Your task to perform on an android device: Go to calendar. Show me events next week Image 0: 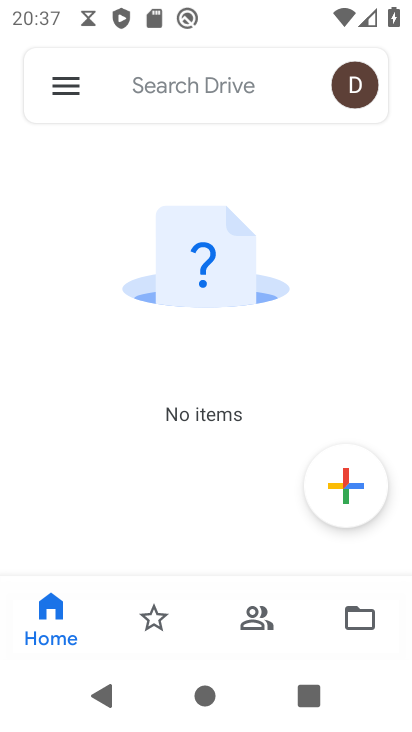
Step 0: press home button
Your task to perform on an android device: Go to calendar. Show me events next week Image 1: 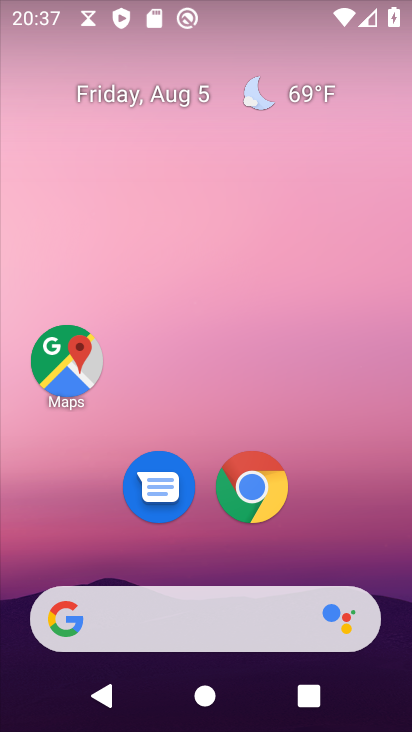
Step 1: drag from (182, 612) to (346, 6)
Your task to perform on an android device: Go to calendar. Show me events next week Image 2: 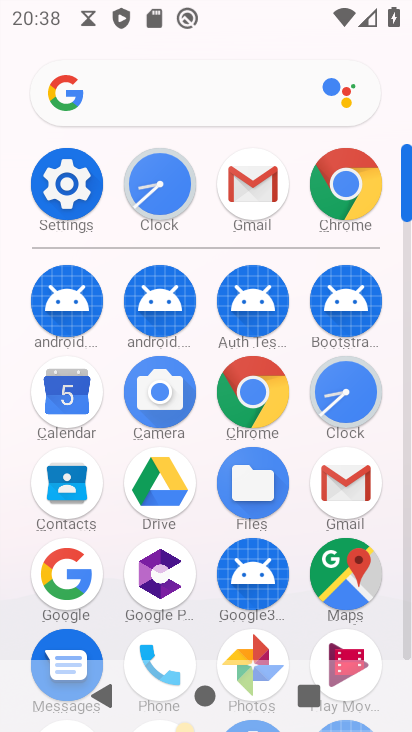
Step 2: click (70, 403)
Your task to perform on an android device: Go to calendar. Show me events next week Image 3: 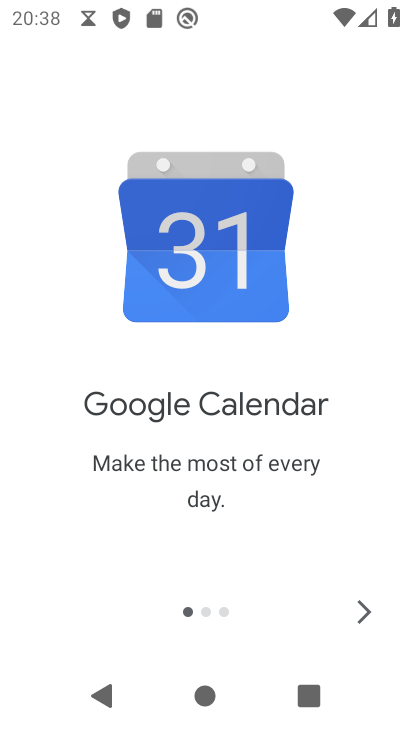
Step 3: click (363, 605)
Your task to perform on an android device: Go to calendar. Show me events next week Image 4: 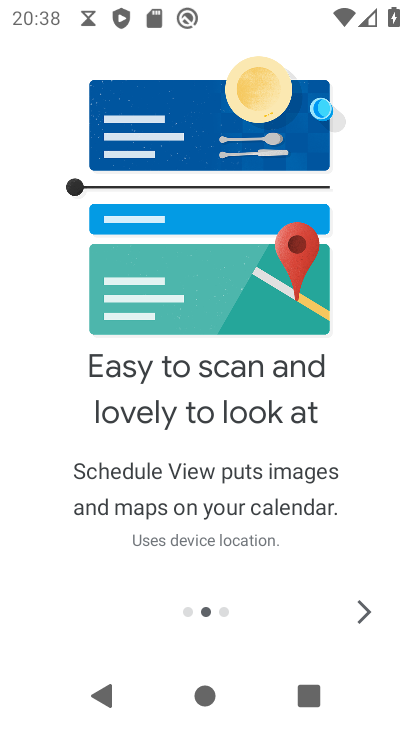
Step 4: click (363, 606)
Your task to perform on an android device: Go to calendar. Show me events next week Image 5: 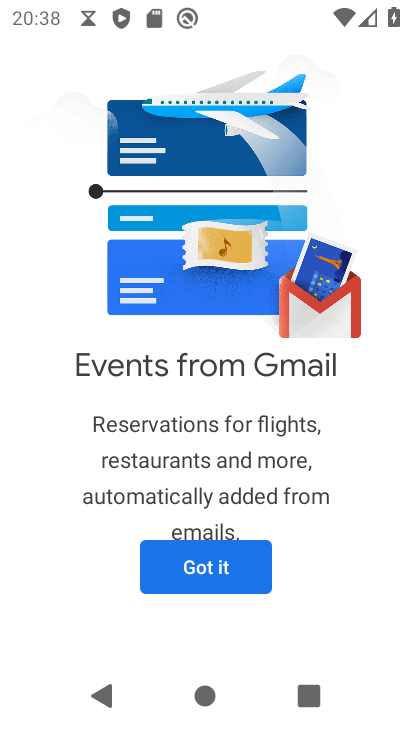
Step 5: click (241, 574)
Your task to perform on an android device: Go to calendar. Show me events next week Image 6: 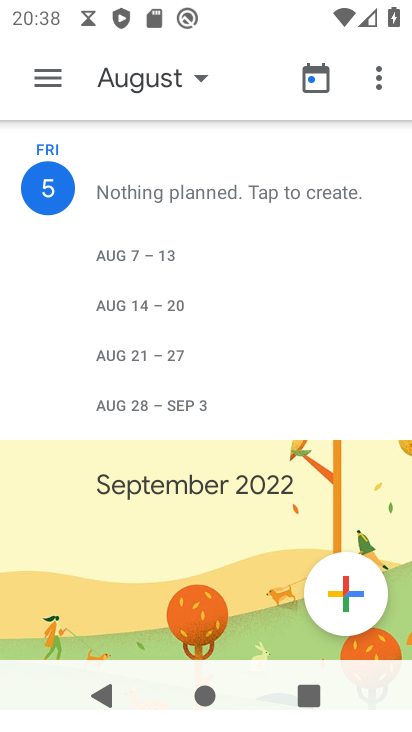
Step 6: click (128, 80)
Your task to perform on an android device: Go to calendar. Show me events next week Image 7: 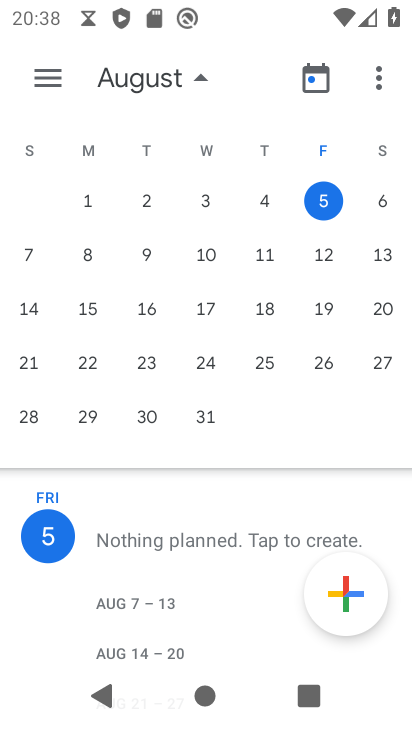
Step 7: click (32, 256)
Your task to perform on an android device: Go to calendar. Show me events next week Image 8: 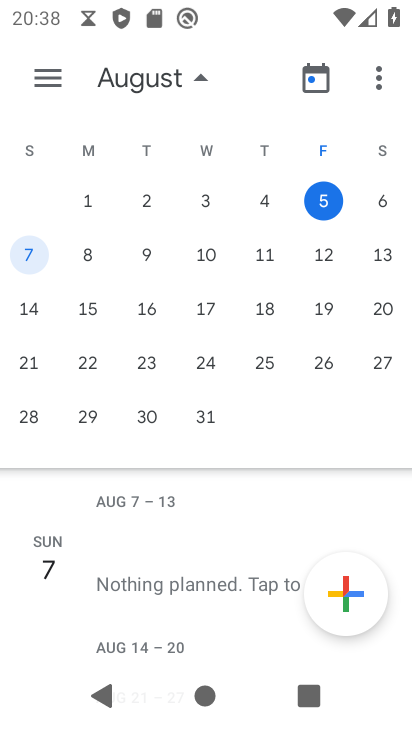
Step 8: click (54, 90)
Your task to perform on an android device: Go to calendar. Show me events next week Image 9: 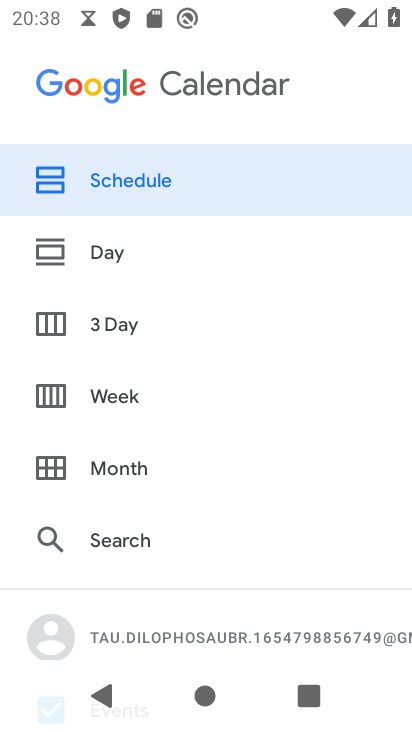
Step 9: click (130, 406)
Your task to perform on an android device: Go to calendar. Show me events next week Image 10: 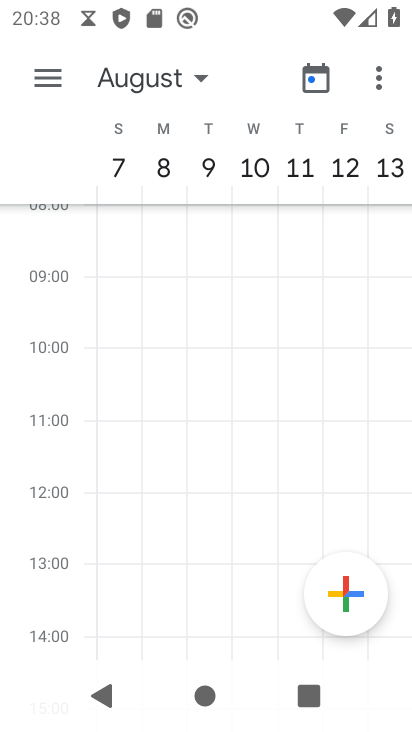
Step 10: click (39, 75)
Your task to perform on an android device: Go to calendar. Show me events next week Image 11: 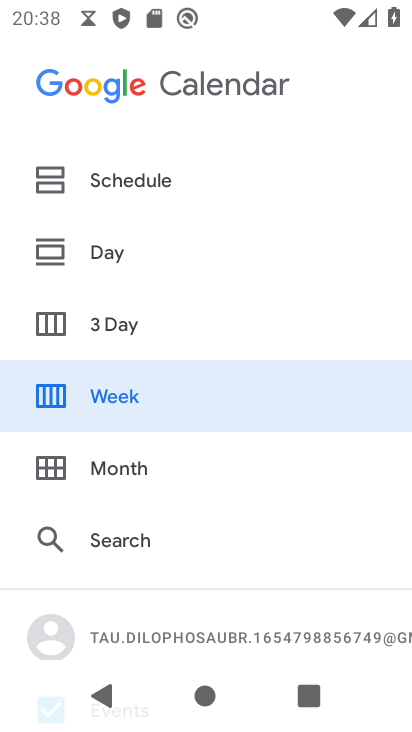
Step 11: click (105, 181)
Your task to perform on an android device: Go to calendar. Show me events next week Image 12: 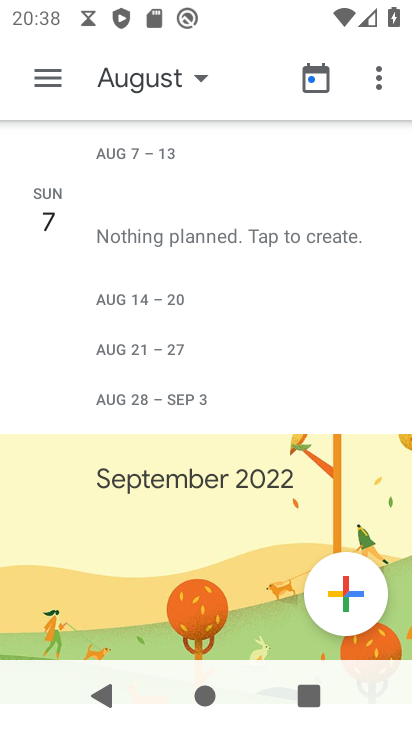
Step 12: task complete